Your task to perform on an android device: change notifications settings Image 0: 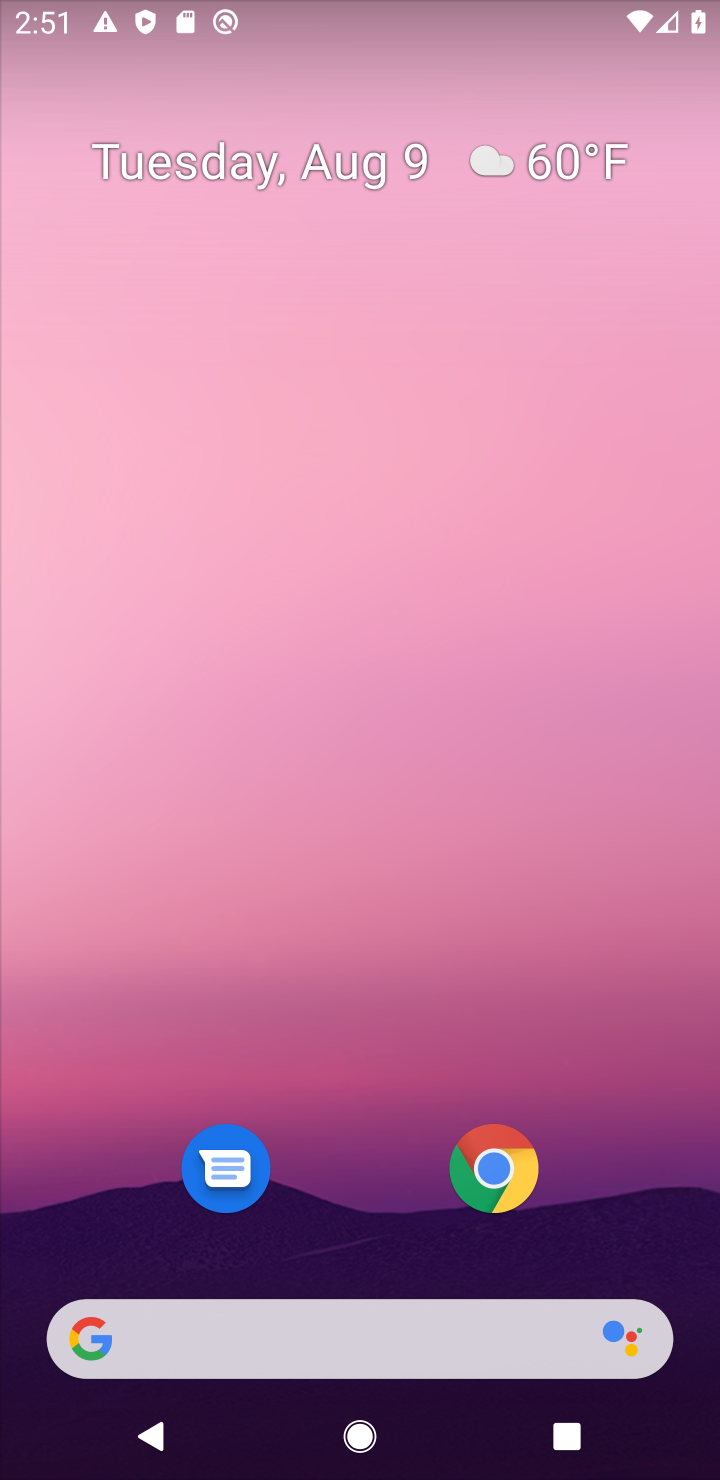
Step 0: press home button
Your task to perform on an android device: change notifications settings Image 1: 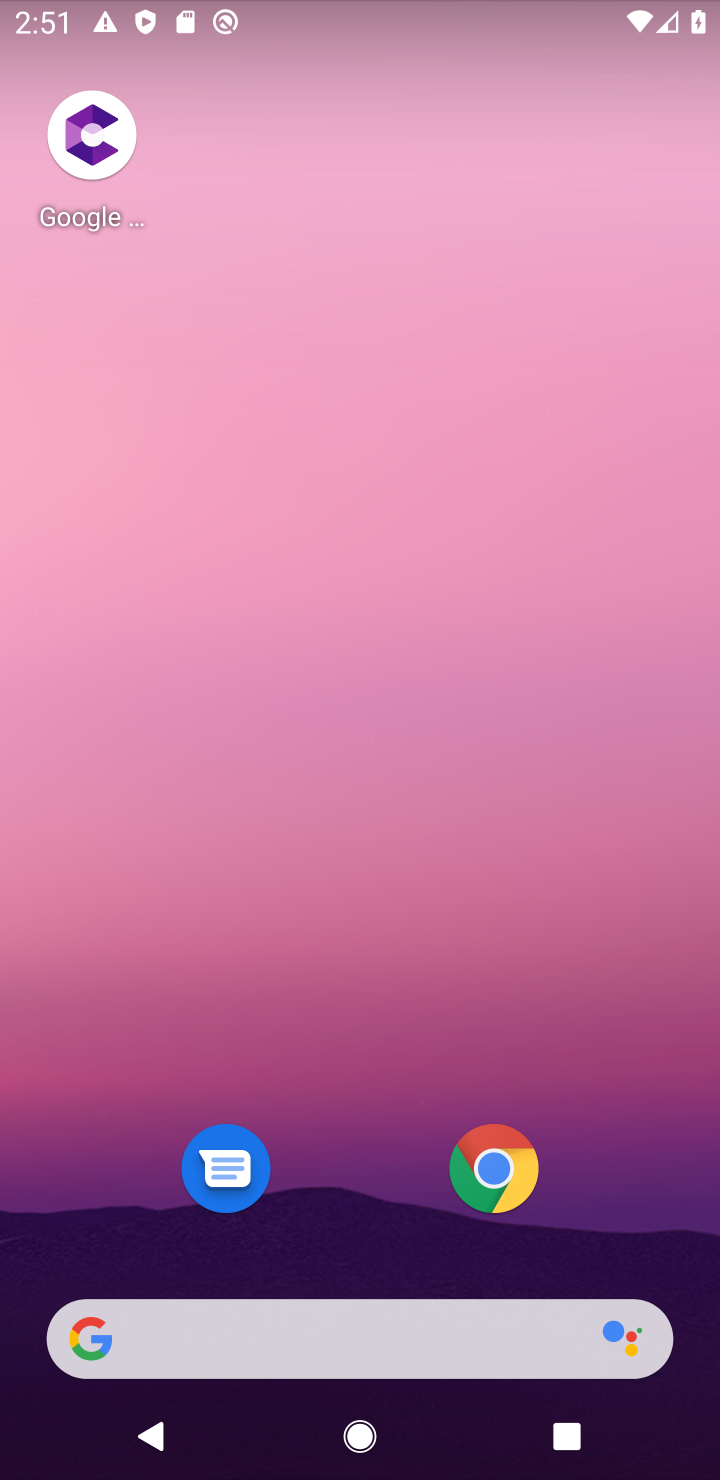
Step 1: drag from (327, 1144) to (253, 508)
Your task to perform on an android device: change notifications settings Image 2: 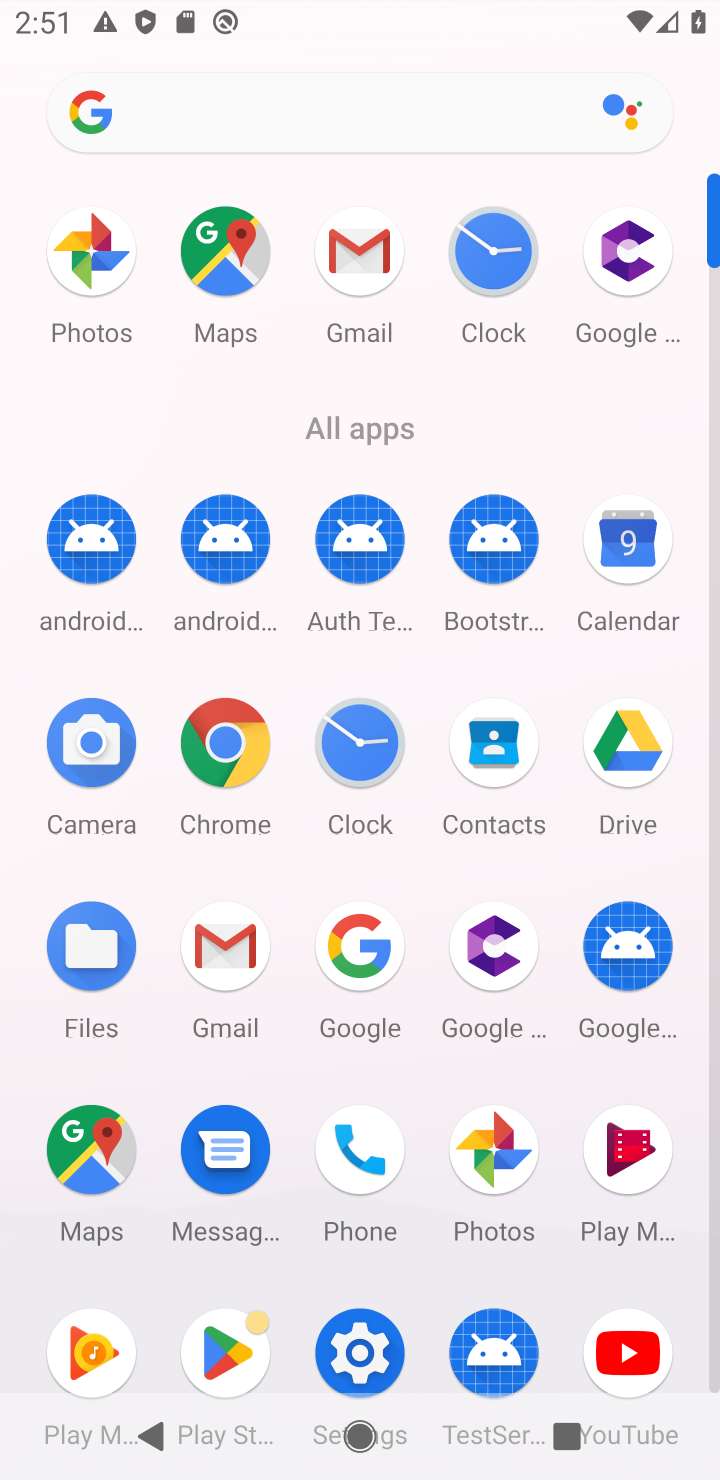
Step 2: click (363, 1323)
Your task to perform on an android device: change notifications settings Image 3: 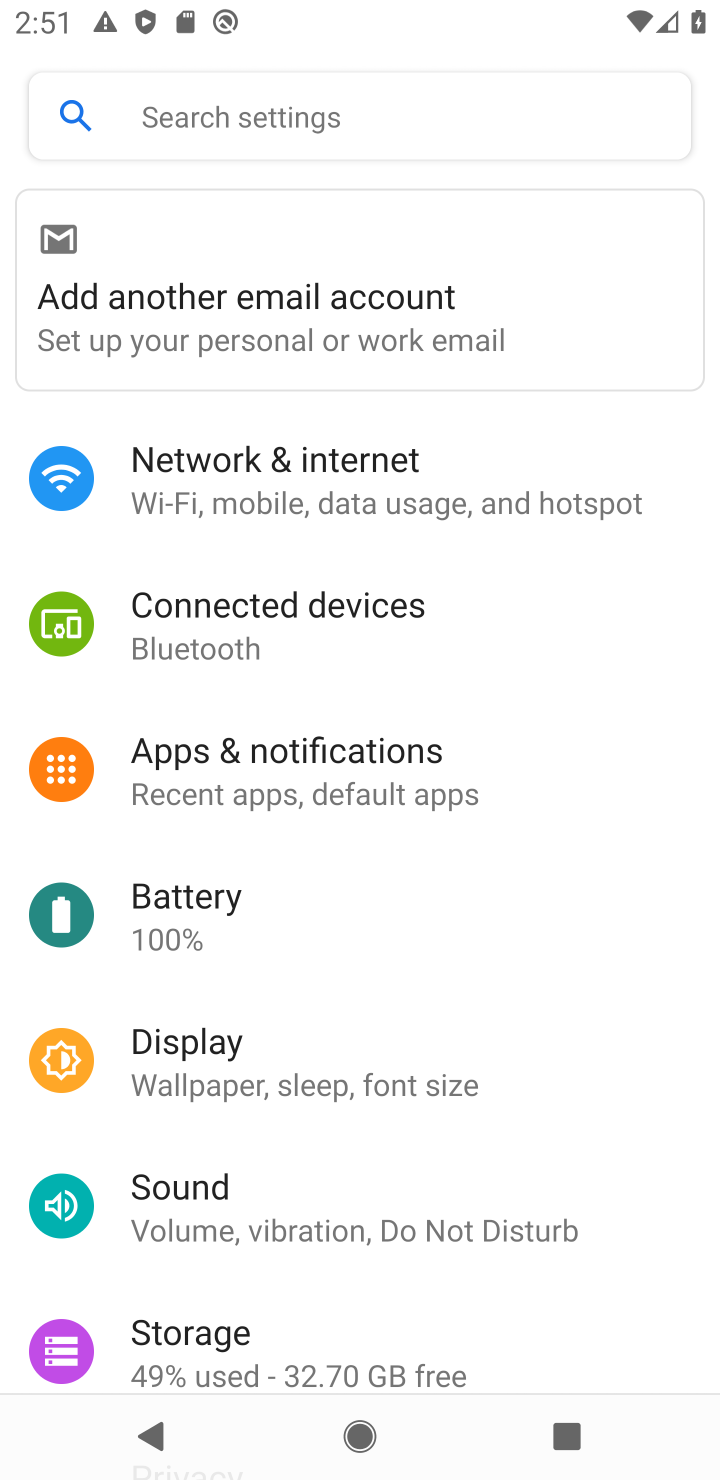
Step 3: click (350, 788)
Your task to perform on an android device: change notifications settings Image 4: 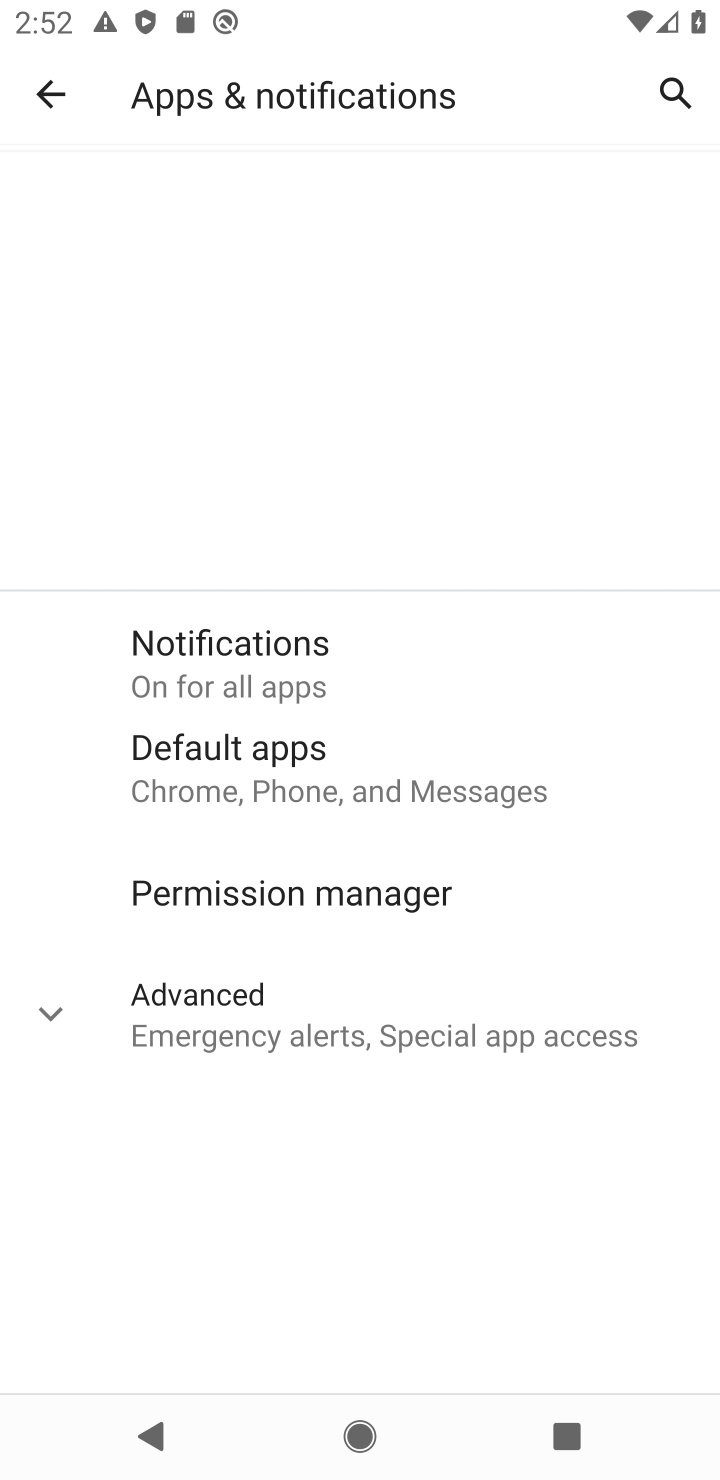
Step 4: click (334, 647)
Your task to perform on an android device: change notifications settings Image 5: 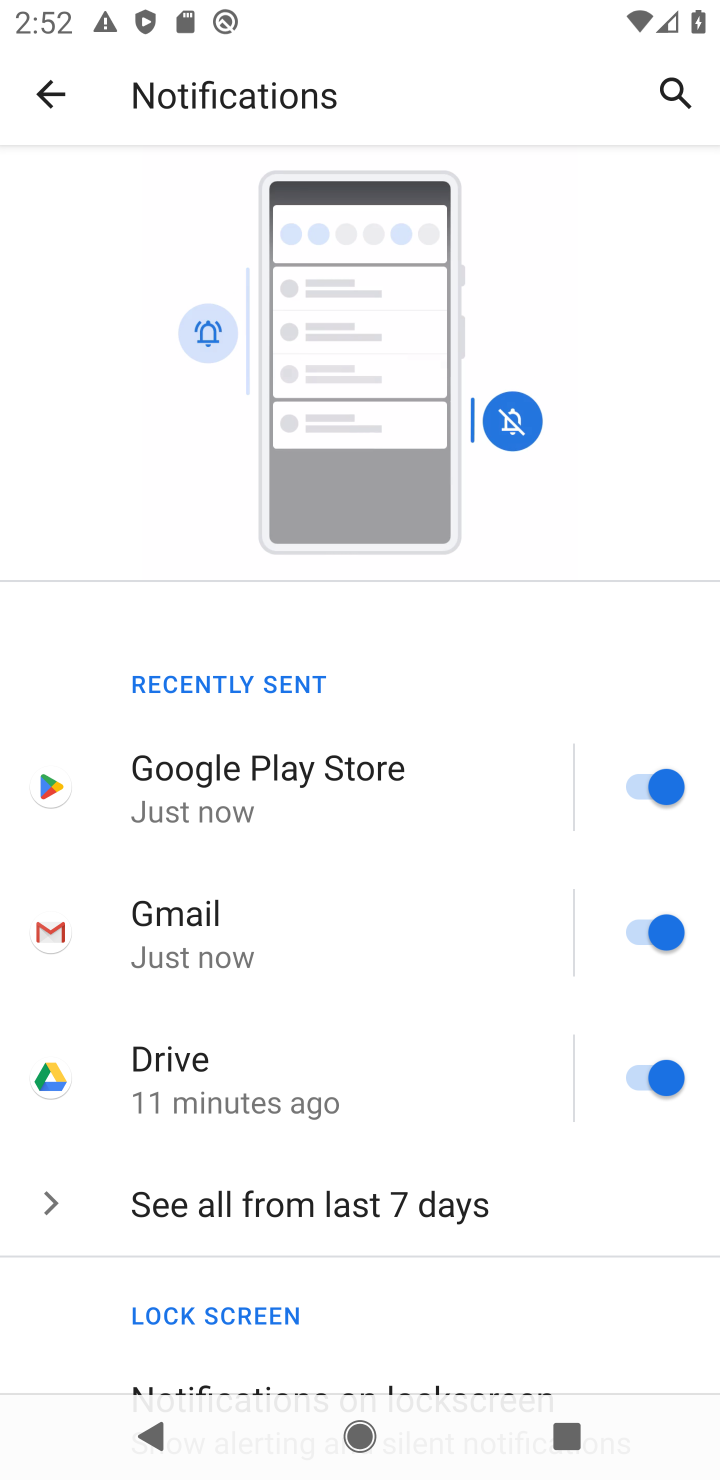
Step 5: task complete